Your task to perform on an android device: Go to sound settings Image 0: 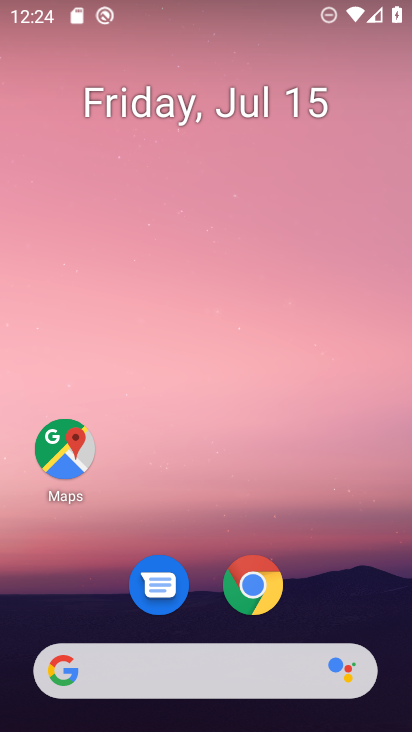
Step 0: drag from (321, 544) to (376, 0)
Your task to perform on an android device: Go to sound settings Image 1: 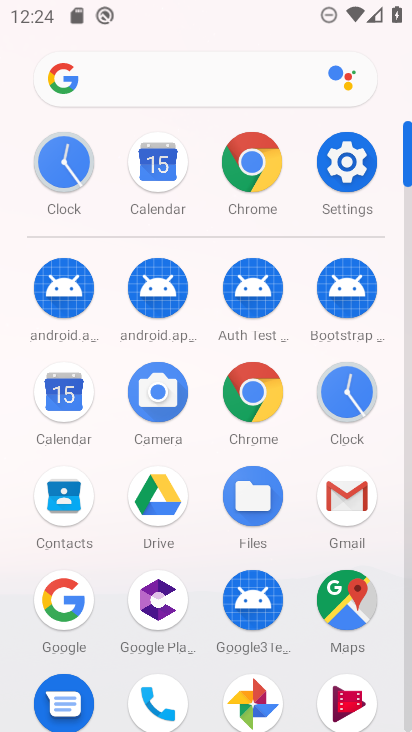
Step 1: click (353, 164)
Your task to perform on an android device: Go to sound settings Image 2: 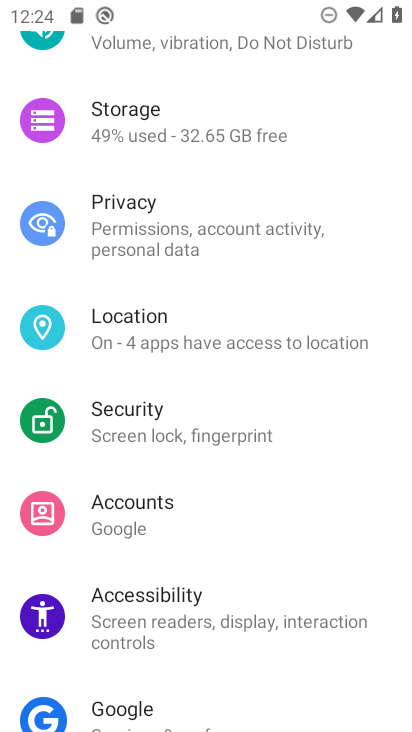
Step 2: drag from (262, 177) to (271, 482)
Your task to perform on an android device: Go to sound settings Image 3: 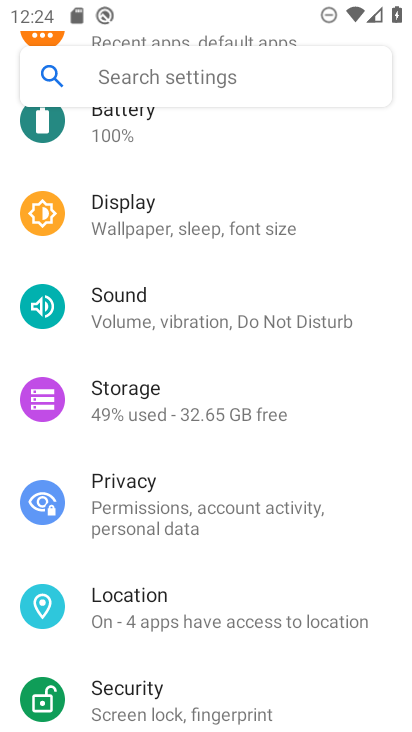
Step 3: click (224, 318)
Your task to perform on an android device: Go to sound settings Image 4: 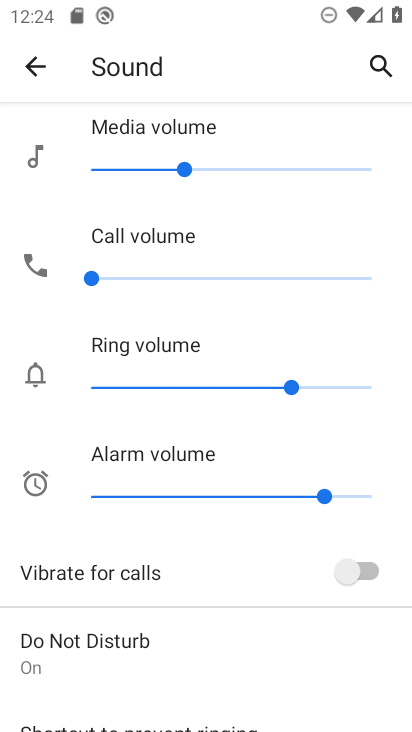
Step 4: task complete